Your task to perform on an android device: Open Youtube and go to "Your channel" Image 0: 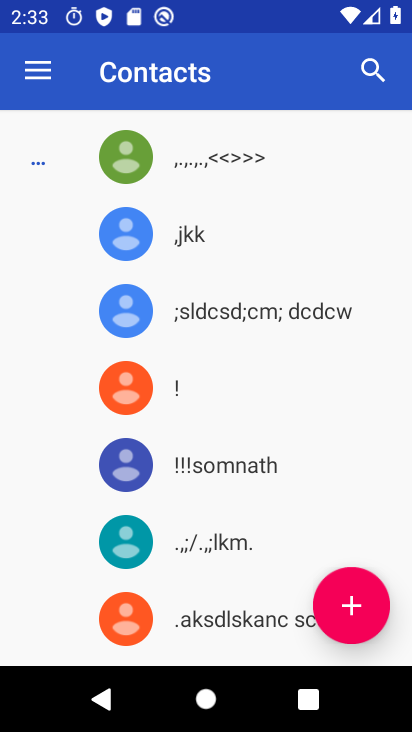
Step 0: press home button
Your task to perform on an android device: Open Youtube and go to "Your channel" Image 1: 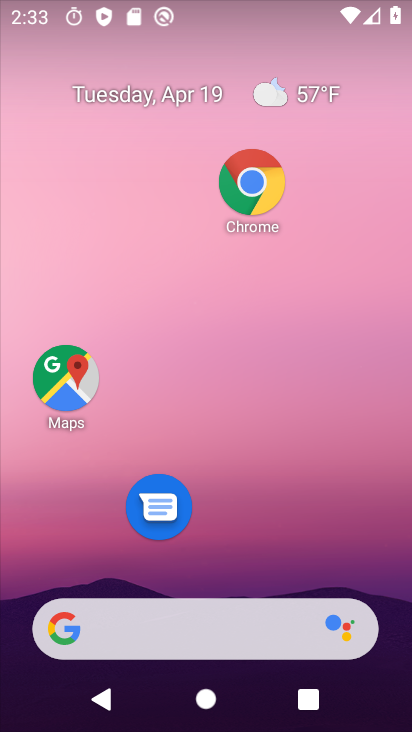
Step 1: drag from (276, 617) to (289, 181)
Your task to perform on an android device: Open Youtube and go to "Your channel" Image 2: 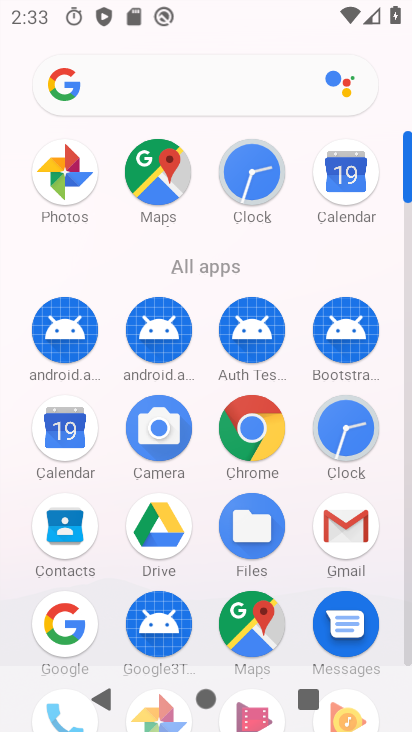
Step 2: drag from (282, 610) to (288, 226)
Your task to perform on an android device: Open Youtube and go to "Your channel" Image 3: 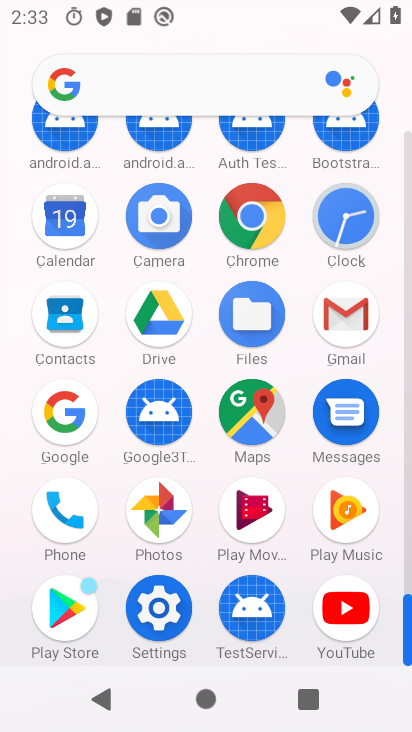
Step 3: click (374, 616)
Your task to perform on an android device: Open Youtube and go to "Your channel" Image 4: 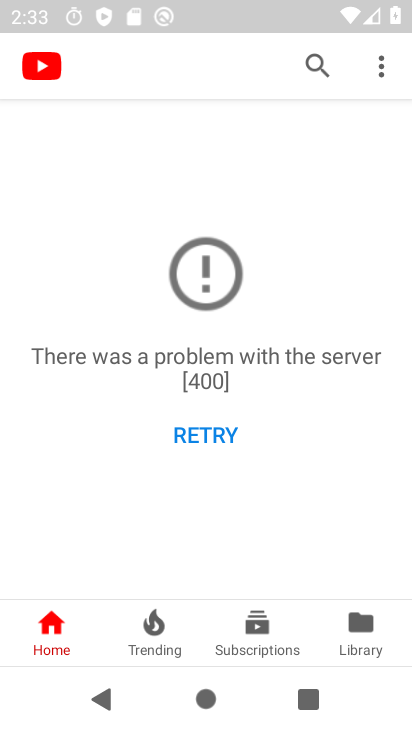
Step 4: click (342, 641)
Your task to perform on an android device: Open Youtube and go to "Your channel" Image 5: 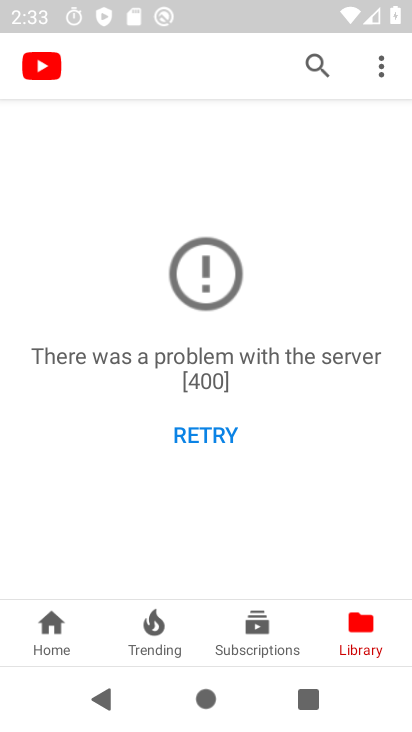
Step 5: click (342, 641)
Your task to perform on an android device: Open Youtube and go to "Your channel" Image 6: 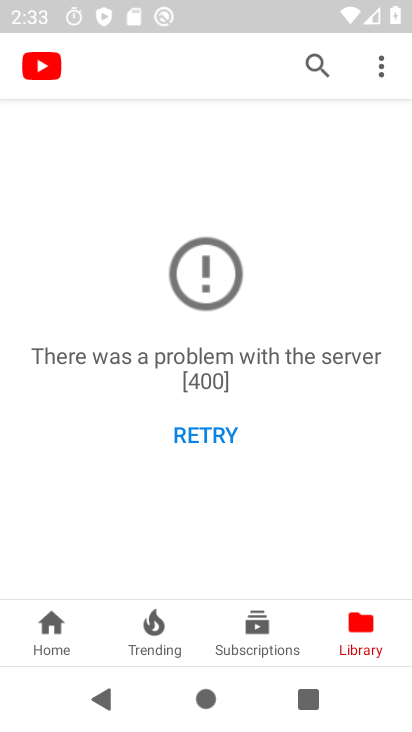
Step 6: click (342, 641)
Your task to perform on an android device: Open Youtube and go to "Your channel" Image 7: 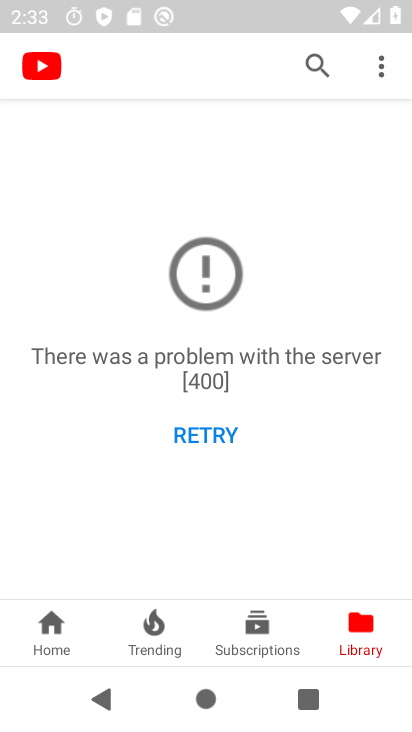
Step 7: click (342, 641)
Your task to perform on an android device: Open Youtube and go to "Your channel" Image 8: 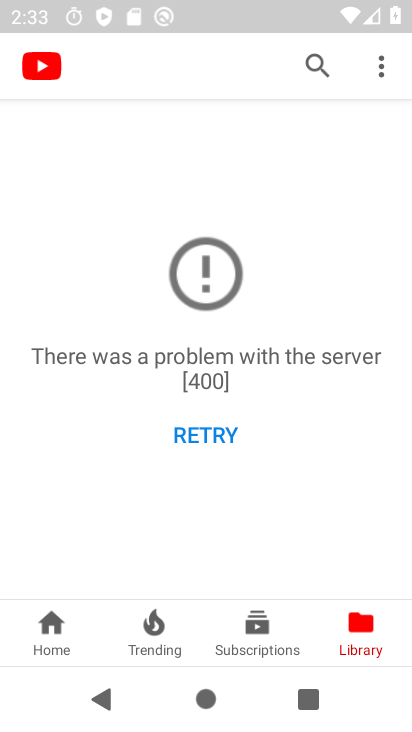
Step 8: click (342, 641)
Your task to perform on an android device: Open Youtube and go to "Your channel" Image 9: 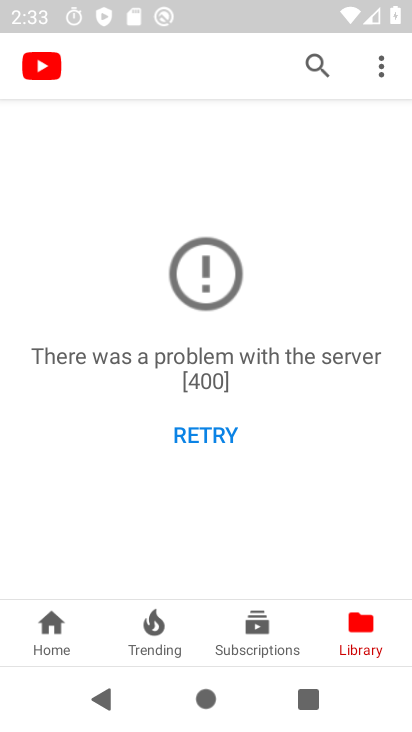
Step 9: click (342, 641)
Your task to perform on an android device: Open Youtube and go to "Your channel" Image 10: 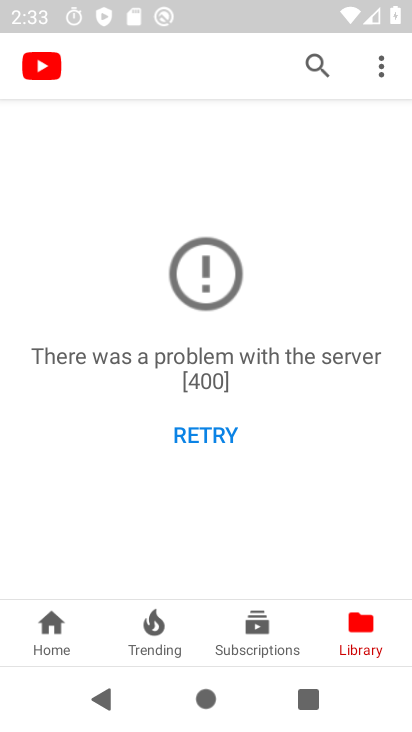
Step 10: task complete